Your task to perform on an android device: open app "VLC for Android" (install if not already installed) Image 0: 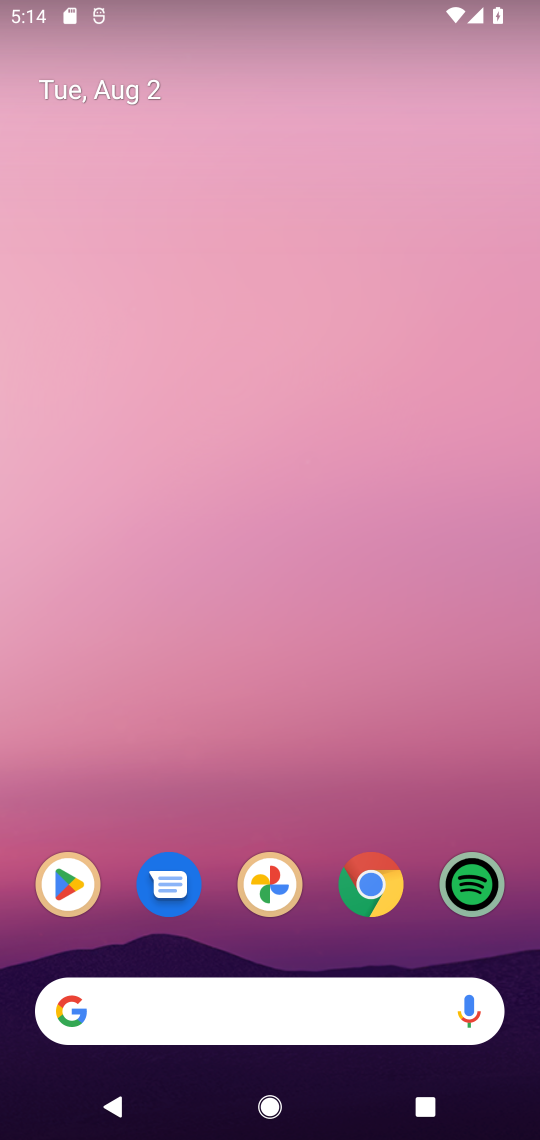
Step 0: drag from (395, 746) to (417, 21)
Your task to perform on an android device: open app "VLC for Android" (install if not already installed) Image 1: 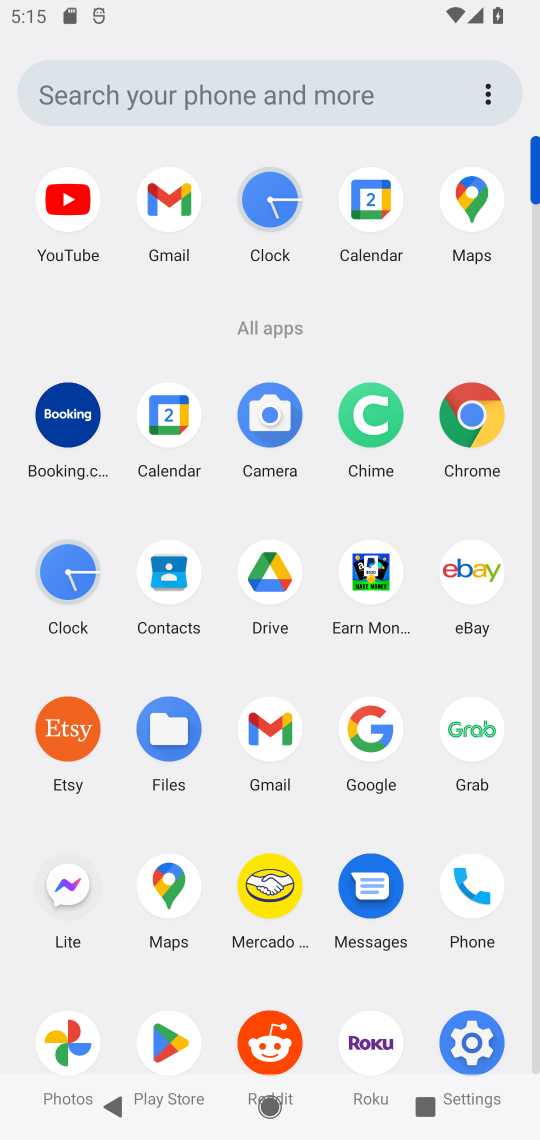
Step 1: click (171, 1043)
Your task to perform on an android device: open app "VLC for Android" (install if not already installed) Image 2: 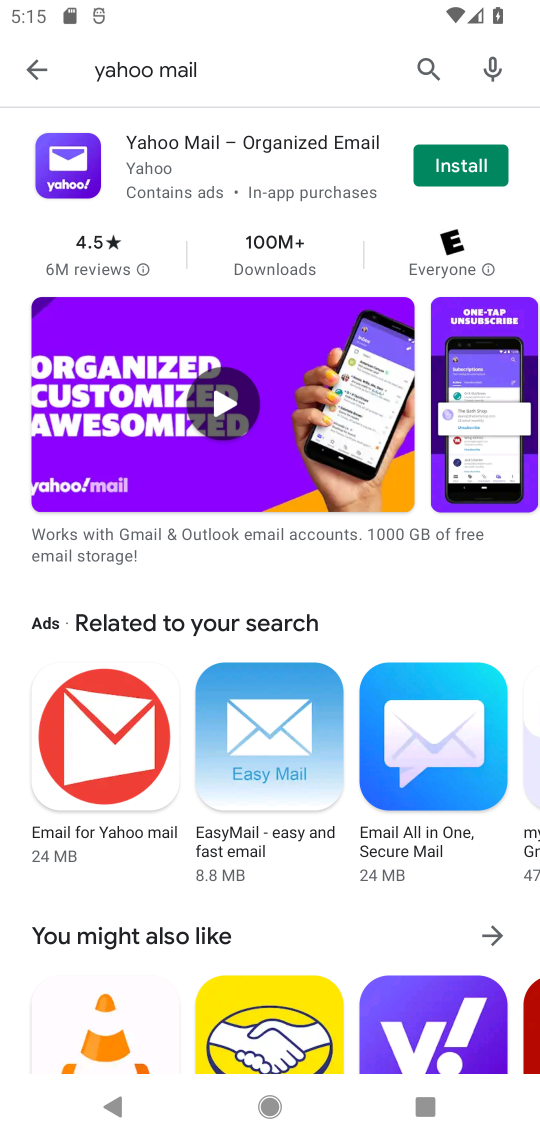
Step 2: click (18, 50)
Your task to perform on an android device: open app "VLC for Android" (install if not already installed) Image 3: 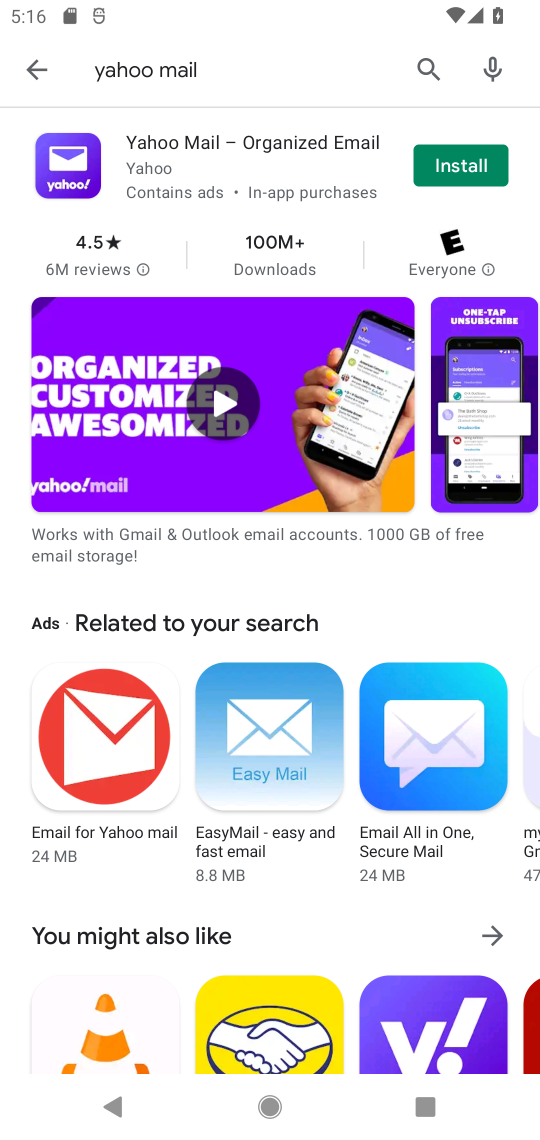
Step 3: click (29, 68)
Your task to perform on an android device: open app "VLC for Android" (install if not already installed) Image 4: 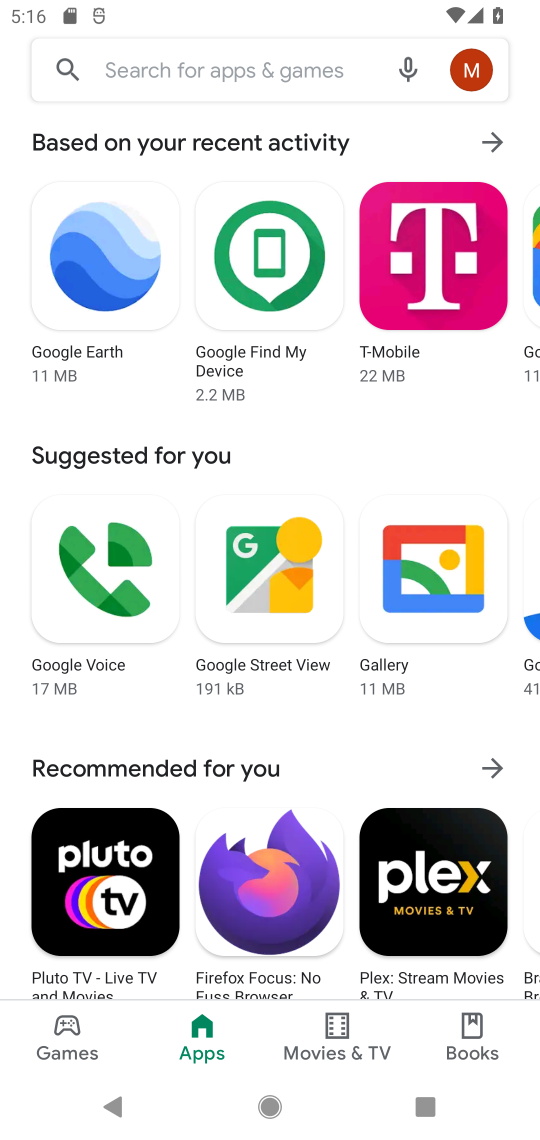
Step 4: click (127, 56)
Your task to perform on an android device: open app "VLC for Android" (install if not already installed) Image 5: 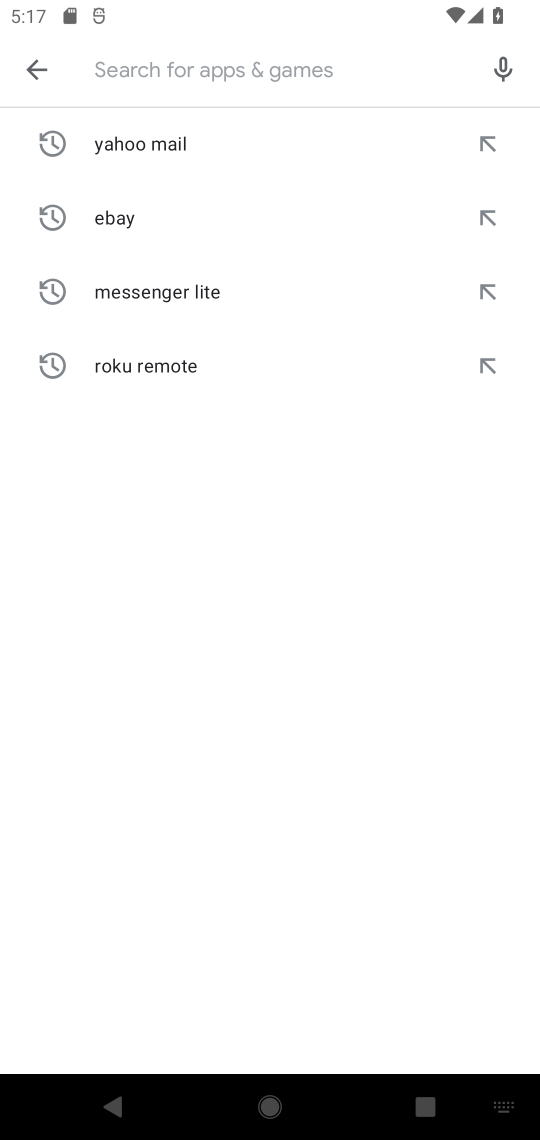
Step 5: type ""VLC for Android""
Your task to perform on an android device: open app "VLC for Android" (install if not already installed) Image 6: 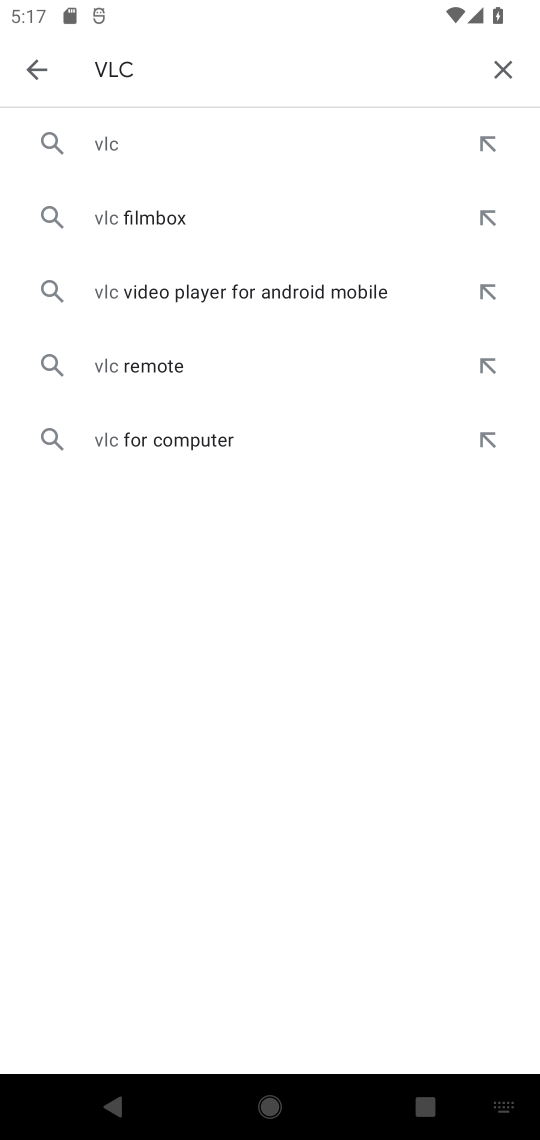
Step 6: click (84, 151)
Your task to perform on an android device: open app "VLC for Android" (install if not already installed) Image 7: 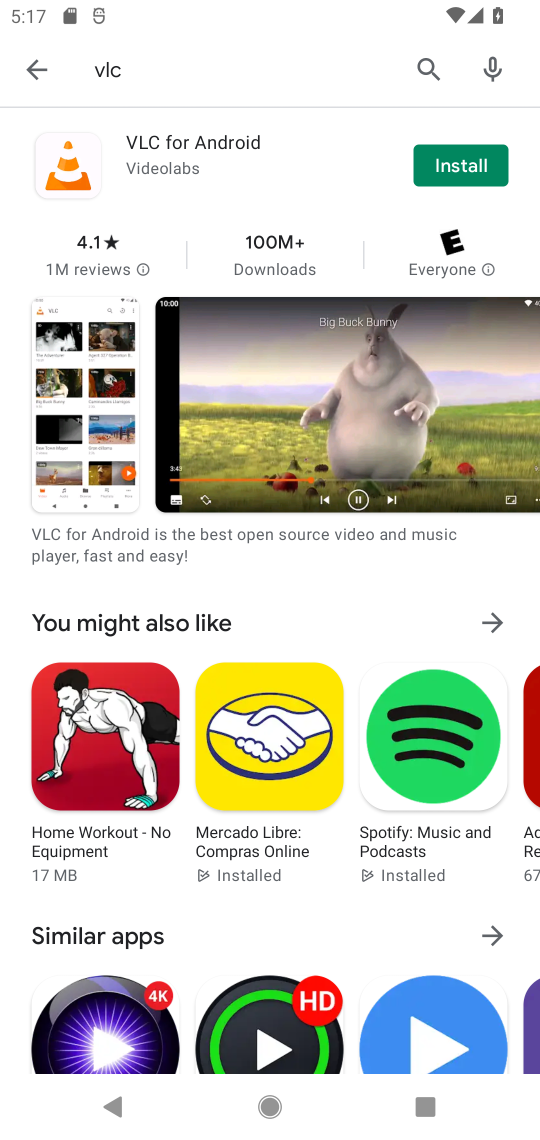
Step 7: click (442, 142)
Your task to perform on an android device: open app "VLC for Android" (install if not already installed) Image 8: 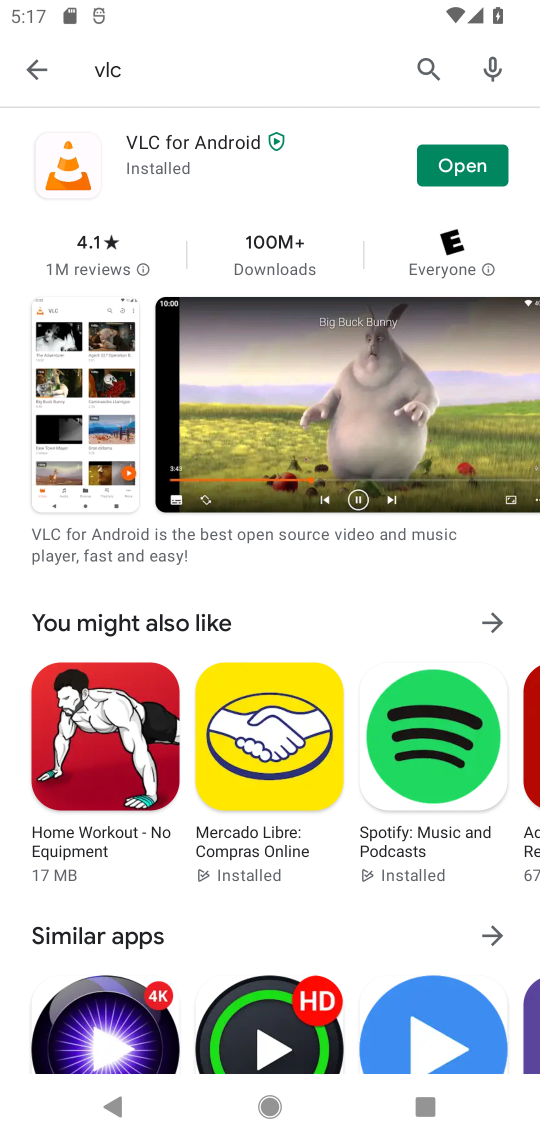
Step 8: click (442, 171)
Your task to perform on an android device: open app "VLC for Android" (install if not already installed) Image 9: 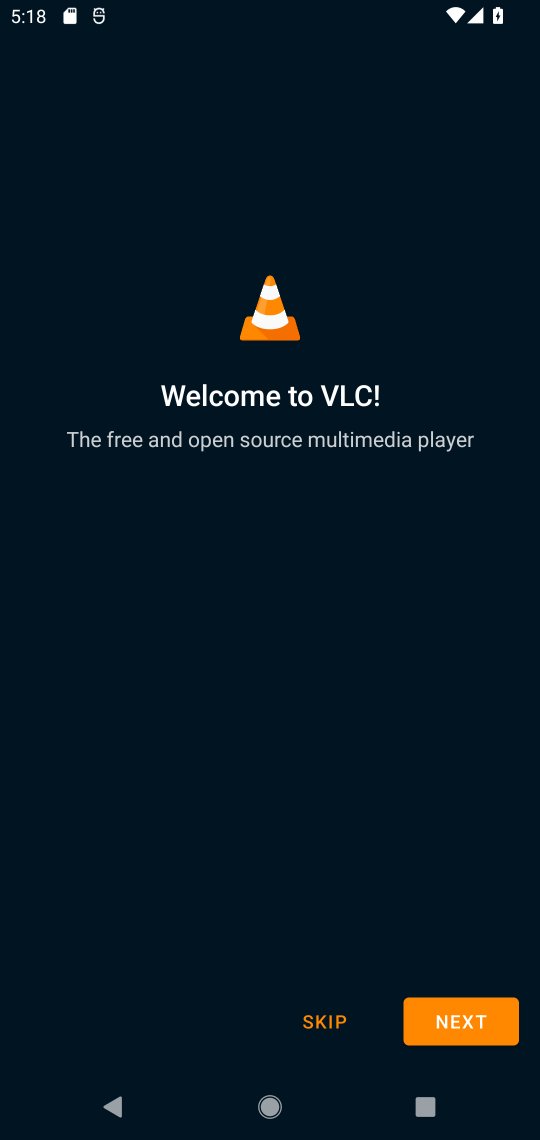
Step 9: task complete